Your task to perform on an android device: turn off location Image 0: 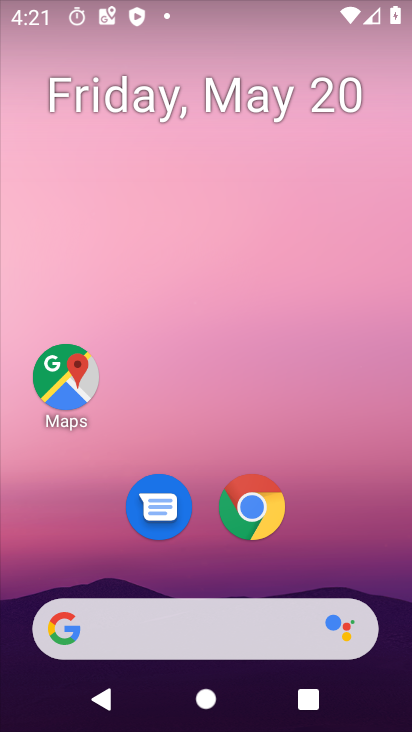
Step 0: drag from (341, 550) to (191, 36)
Your task to perform on an android device: turn off location Image 1: 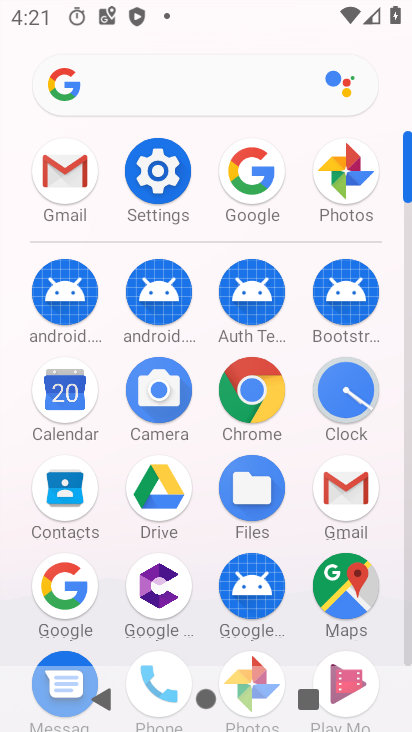
Step 1: click (160, 166)
Your task to perform on an android device: turn off location Image 2: 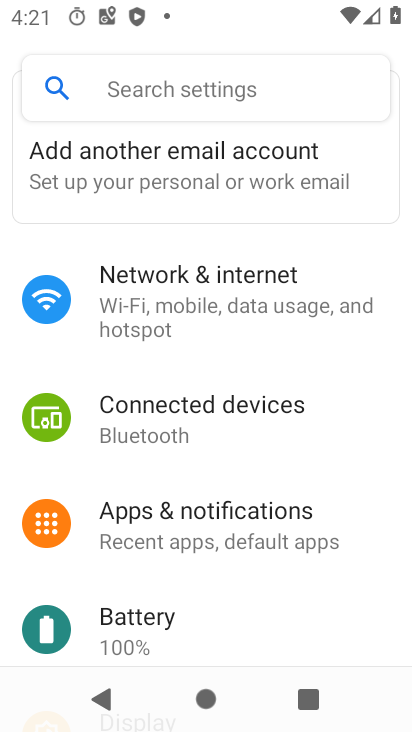
Step 2: drag from (172, 336) to (161, 227)
Your task to perform on an android device: turn off location Image 3: 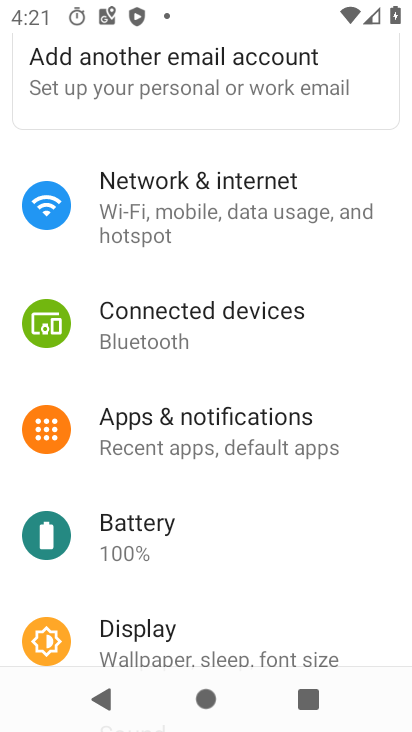
Step 3: drag from (157, 375) to (165, 274)
Your task to perform on an android device: turn off location Image 4: 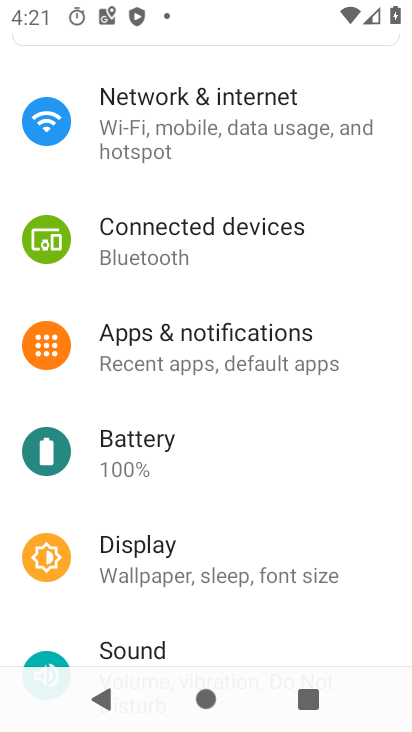
Step 4: drag from (149, 387) to (171, 295)
Your task to perform on an android device: turn off location Image 5: 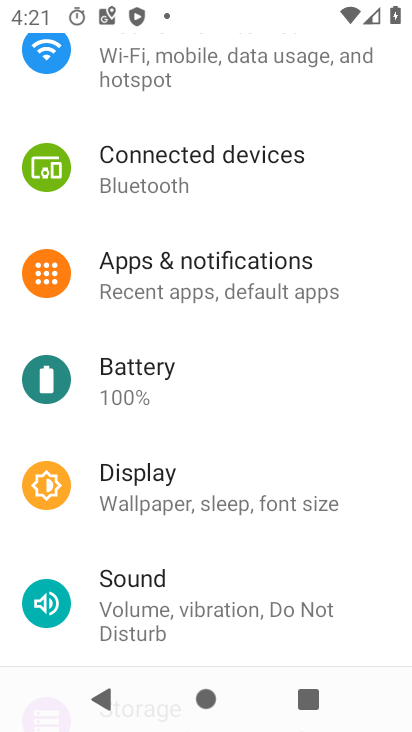
Step 5: drag from (141, 403) to (180, 294)
Your task to perform on an android device: turn off location Image 6: 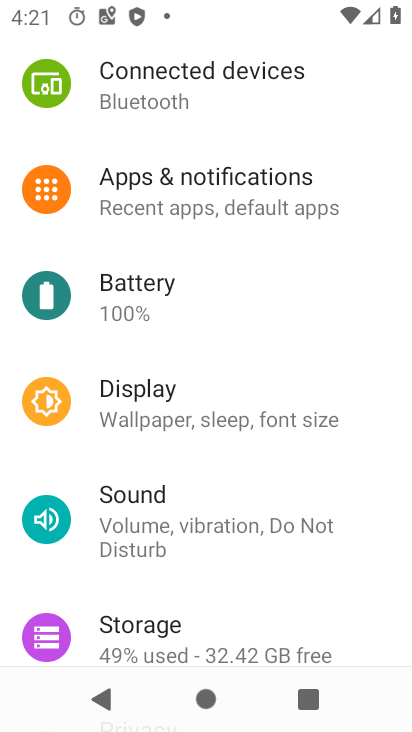
Step 6: drag from (140, 448) to (190, 351)
Your task to perform on an android device: turn off location Image 7: 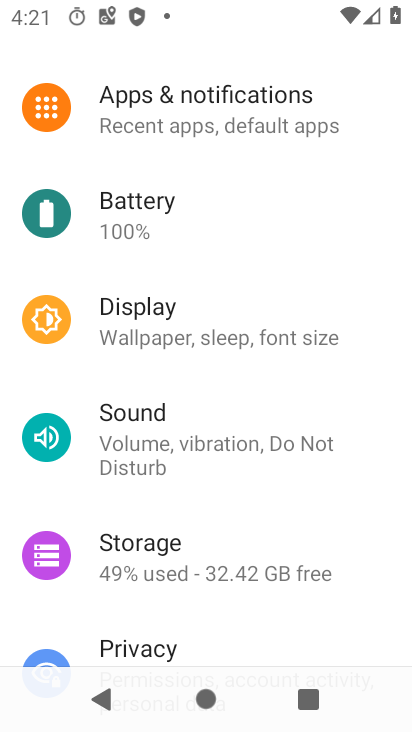
Step 7: drag from (148, 496) to (177, 394)
Your task to perform on an android device: turn off location Image 8: 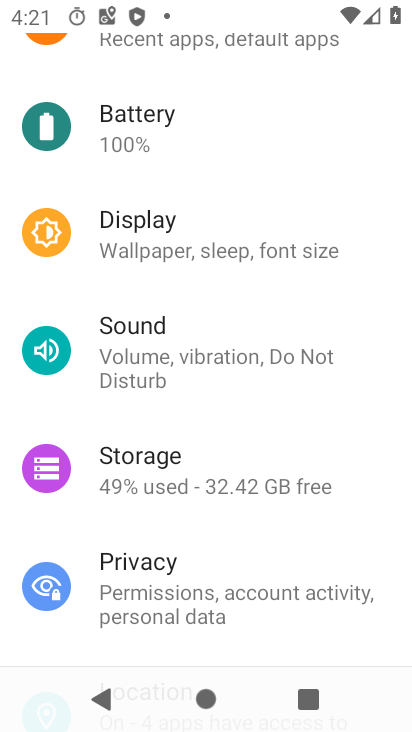
Step 8: drag from (145, 519) to (217, 376)
Your task to perform on an android device: turn off location Image 9: 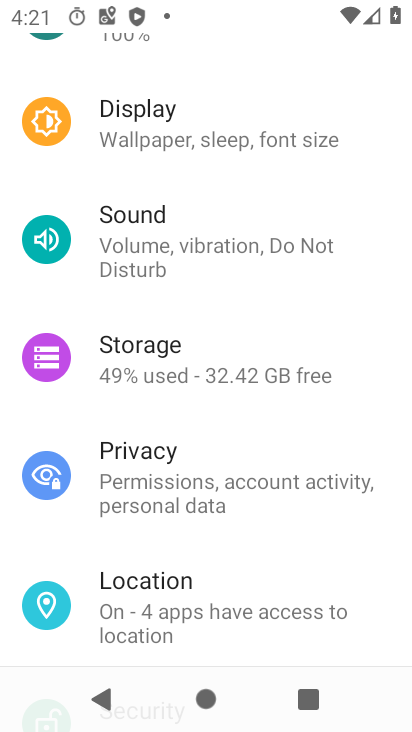
Step 9: drag from (145, 544) to (202, 403)
Your task to perform on an android device: turn off location Image 10: 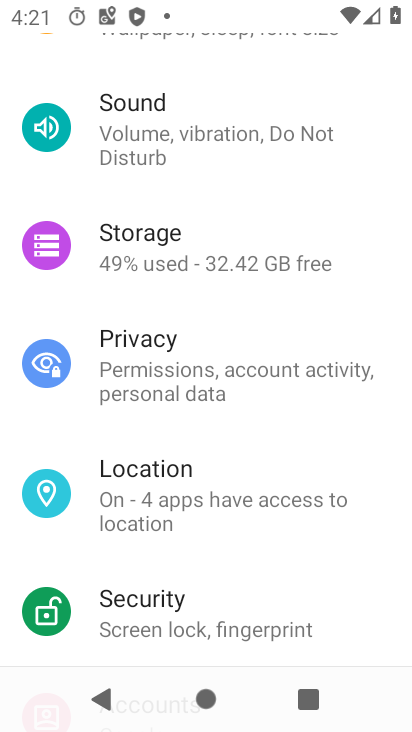
Step 10: click (141, 496)
Your task to perform on an android device: turn off location Image 11: 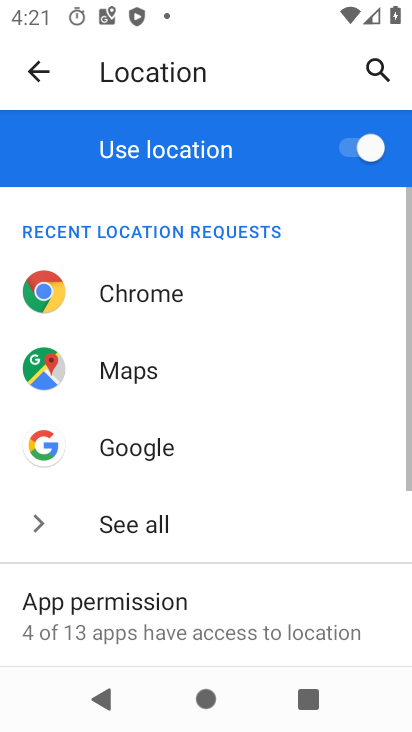
Step 11: click (338, 146)
Your task to perform on an android device: turn off location Image 12: 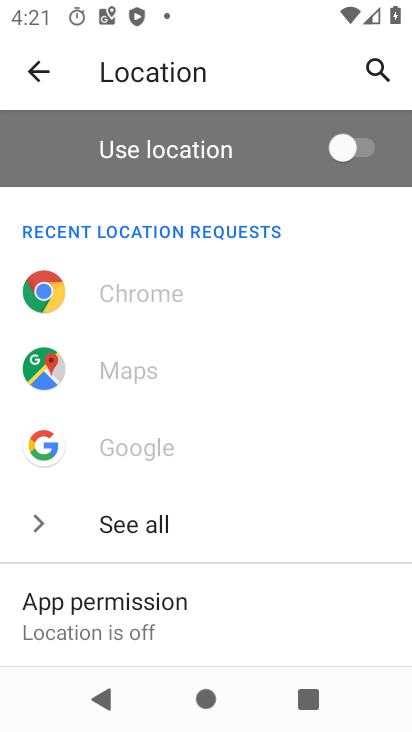
Step 12: task complete